Your task to perform on an android device: Add "razer blade" to the cart on bestbuy, then select checkout. Image 0: 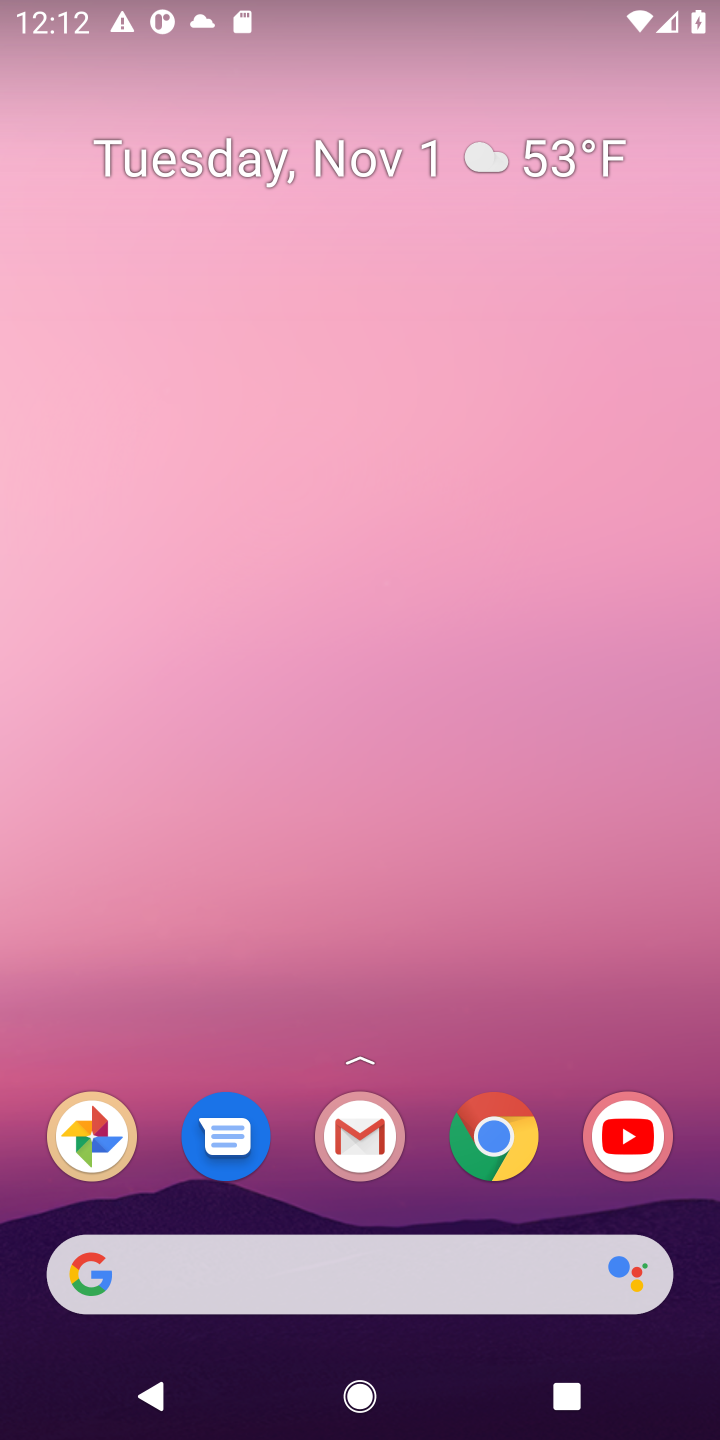
Step 0: click (146, 1272)
Your task to perform on an android device: Add "razer blade" to the cart on bestbuy, then select checkout. Image 1: 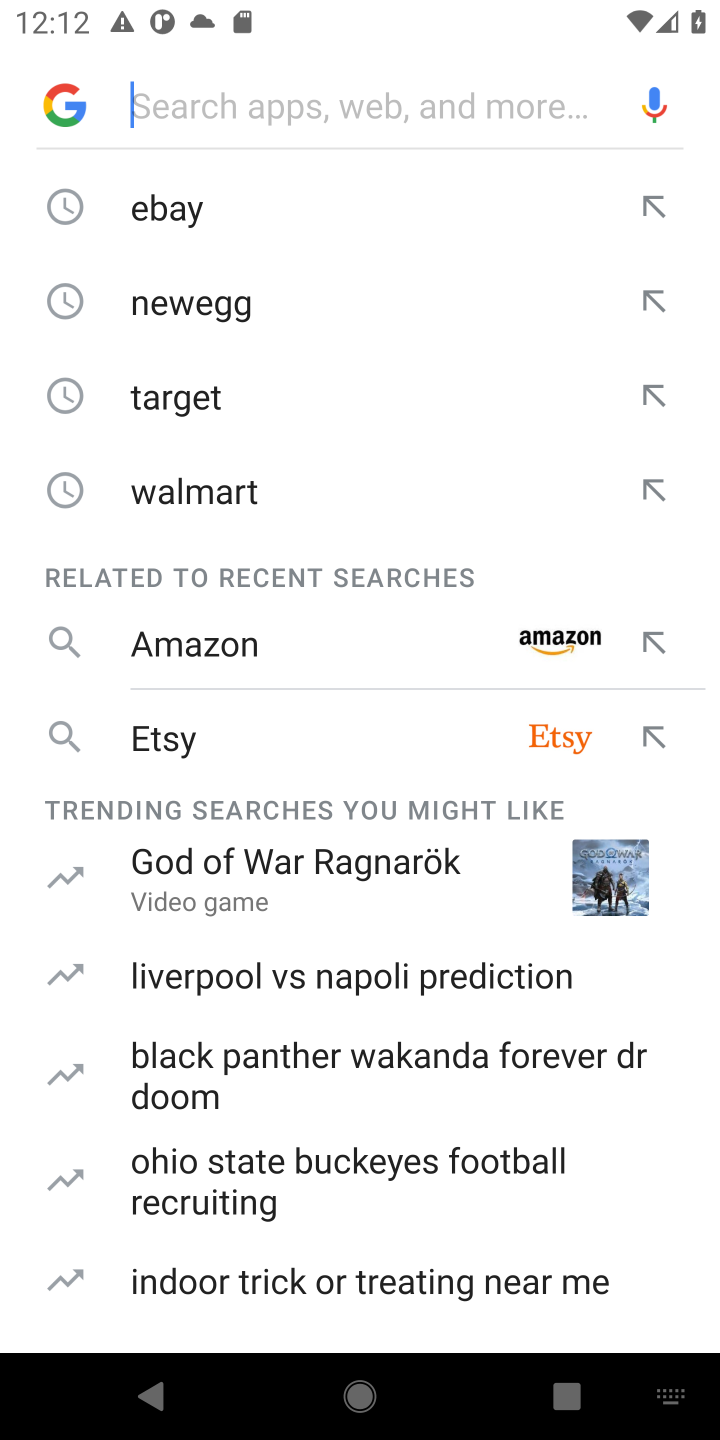
Step 1: press enter
Your task to perform on an android device: Add "razer blade" to the cart on bestbuy, then select checkout. Image 2: 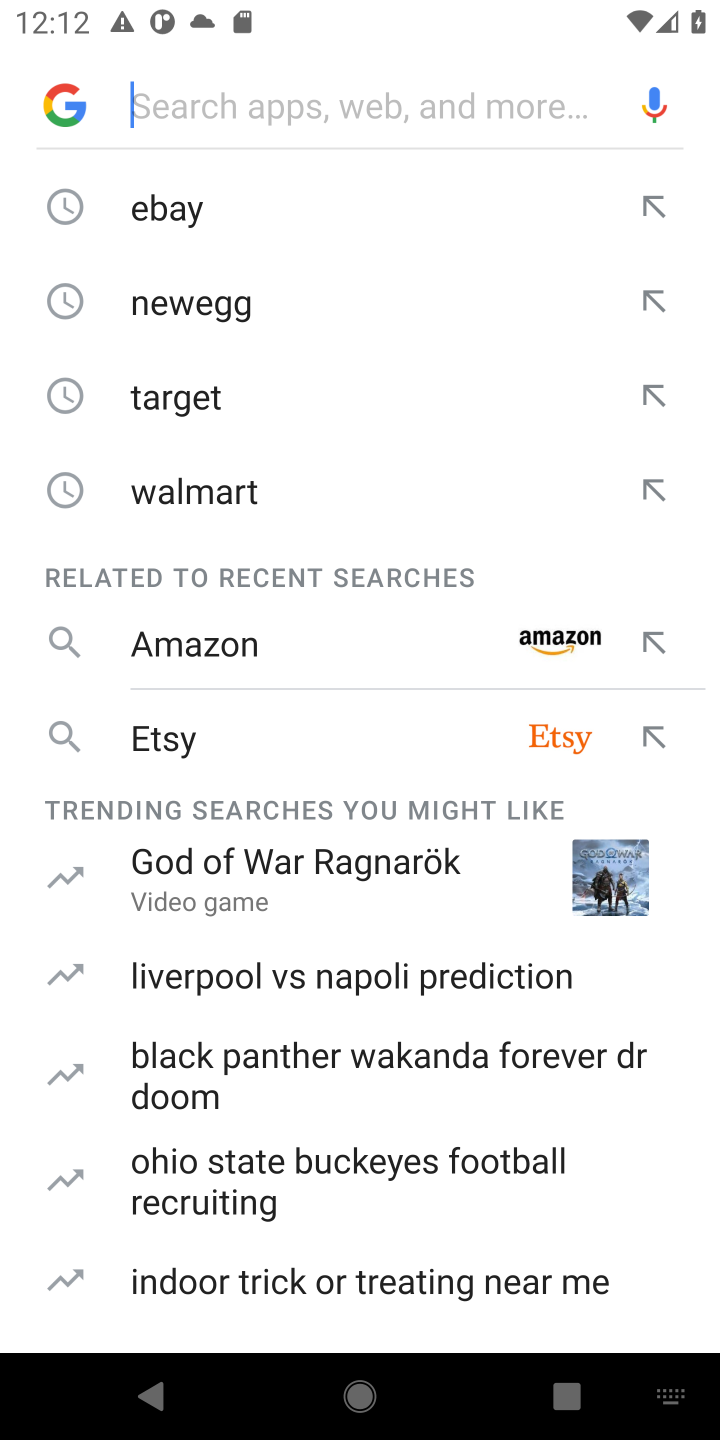
Step 2: type "bestbuy"
Your task to perform on an android device: Add "razer blade" to the cart on bestbuy, then select checkout. Image 3: 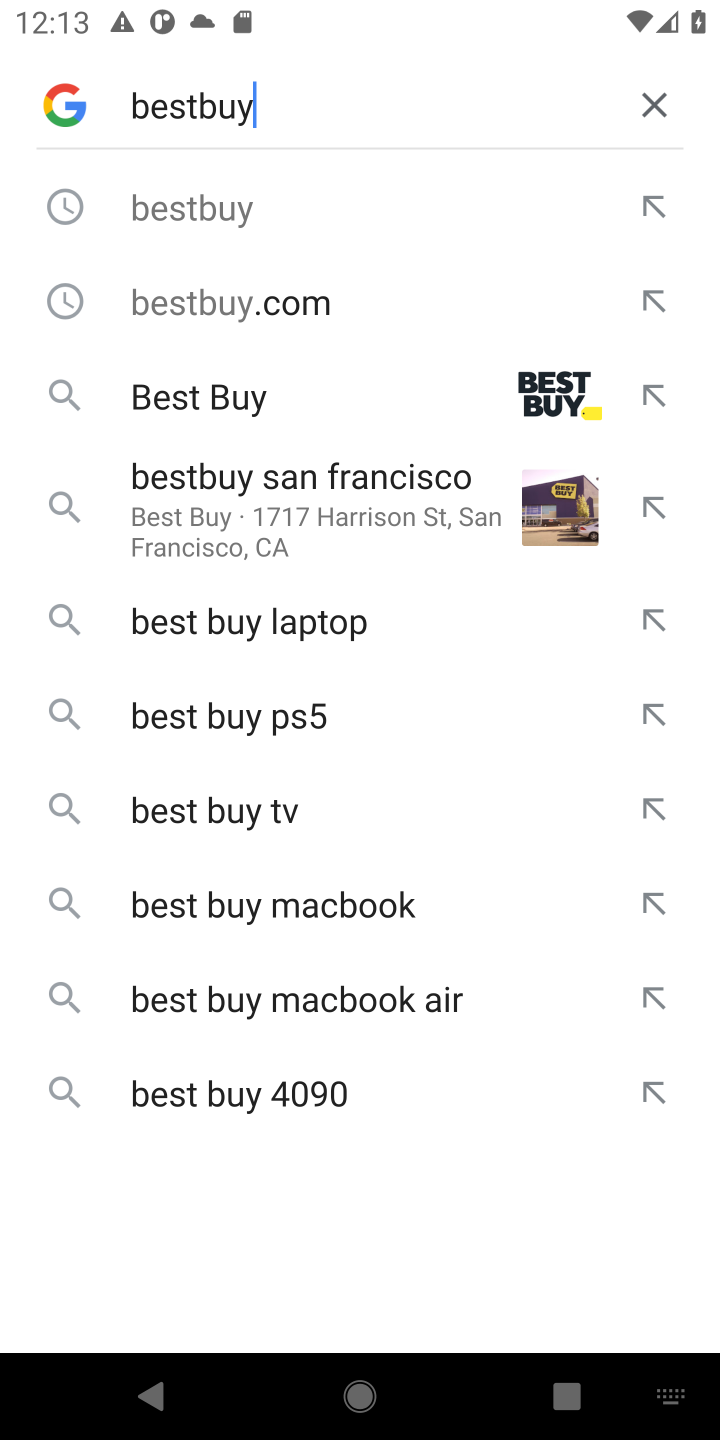
Step 3: press enter
Your task to perform on an android device: Add "razer blade" to the cart on bestbuy, then select checkout. Image 4: 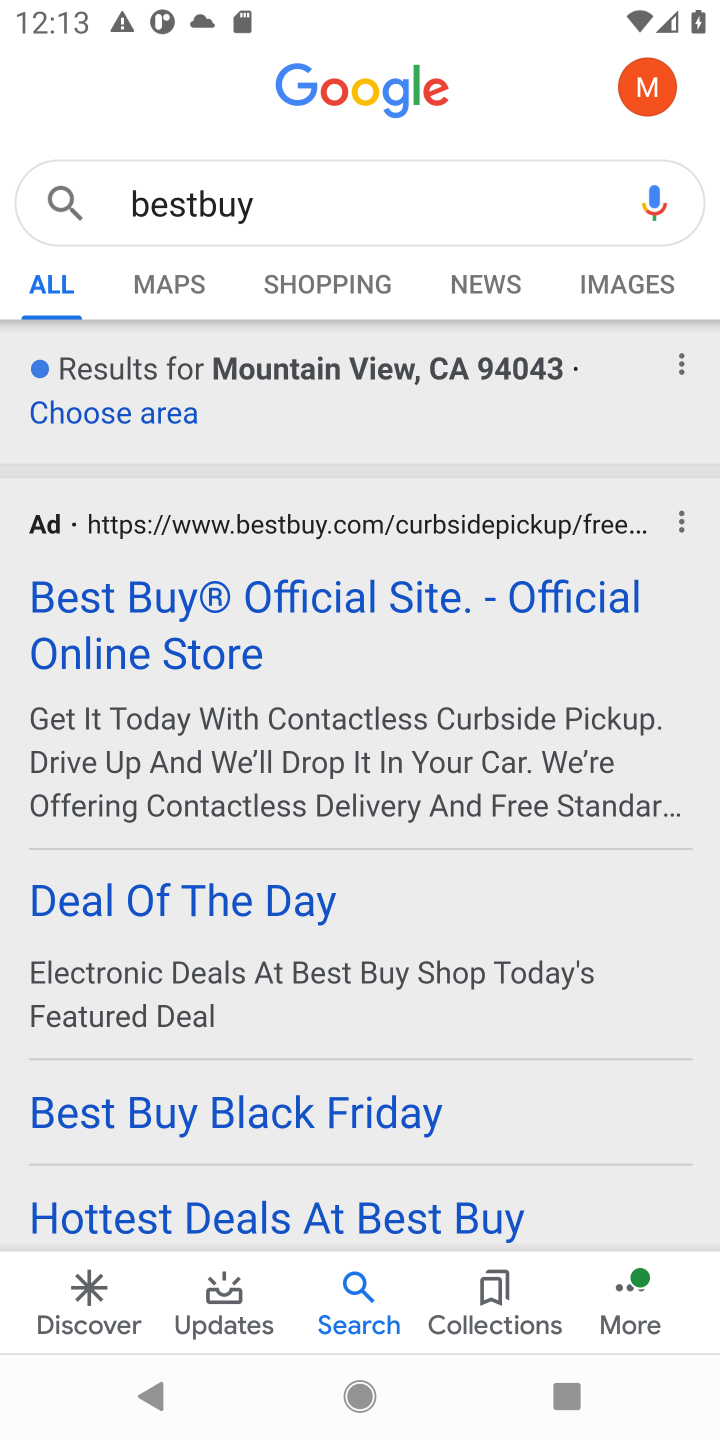
Step 4: click (203, 626)
Your task to perform on an android device: Add "razer blade" to the cart on bestbuy, then select checkout. Image 5: 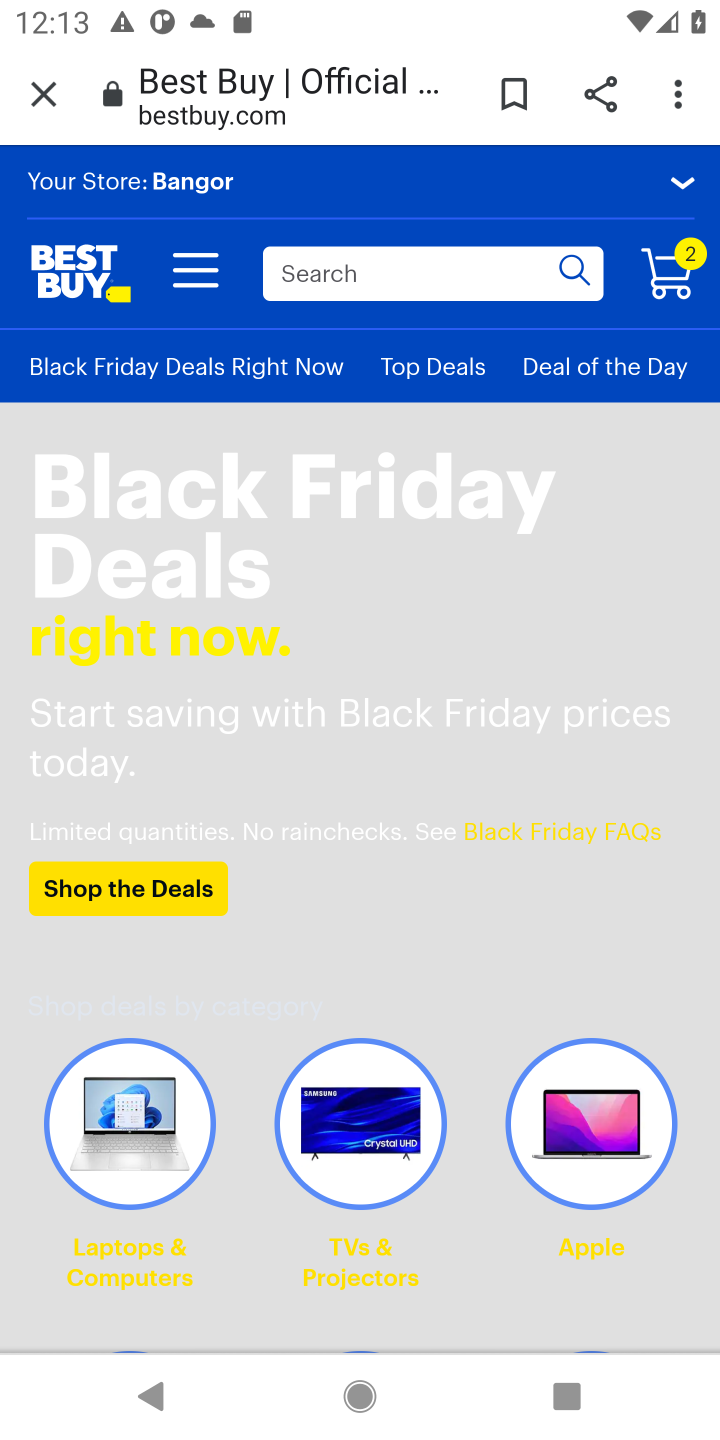
Step 5: click (315, 267)
Your task to perform on an android device: Add "razer blade" to the cart on bestbuy, then select checkout. Image 6: 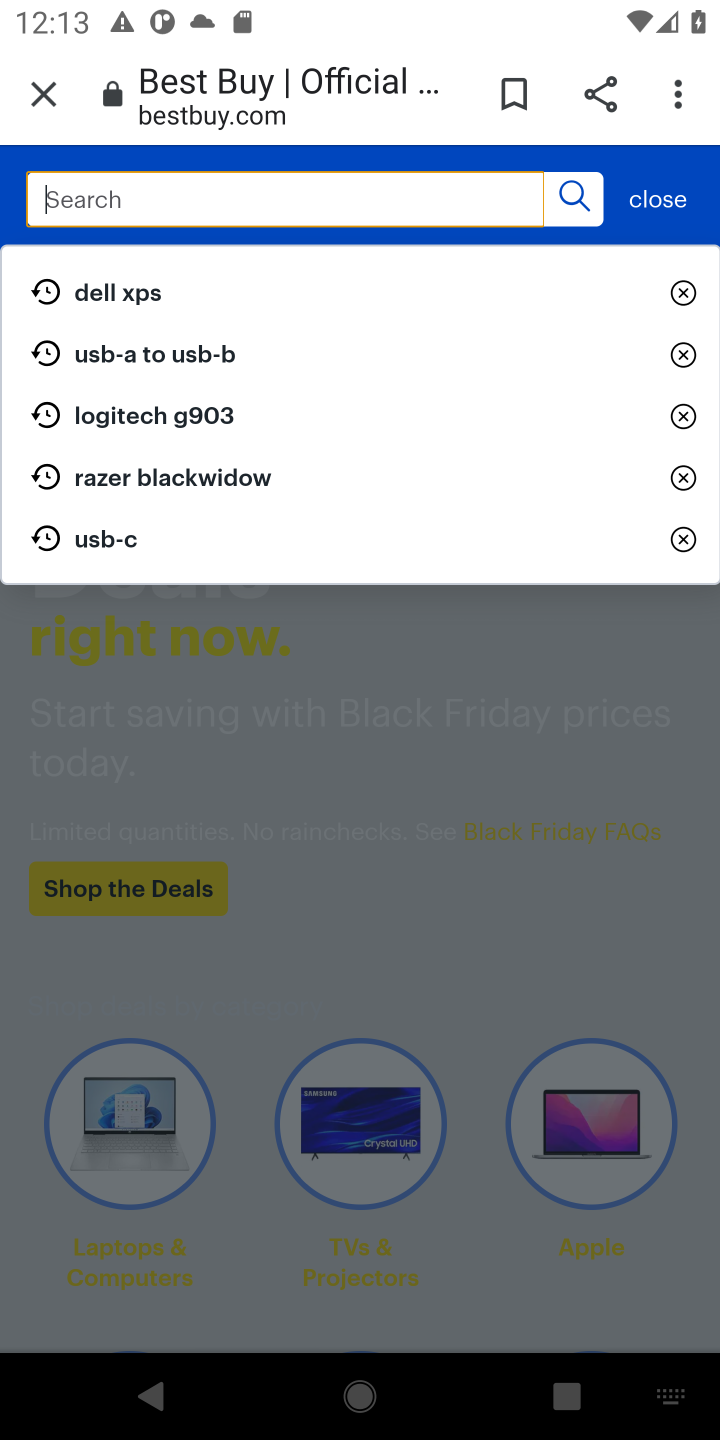
Step 6: type "razer blade"
Your task to perform on an android device: Add "razer blade" to the cart on bestbuy, then select checkout. Image 7: 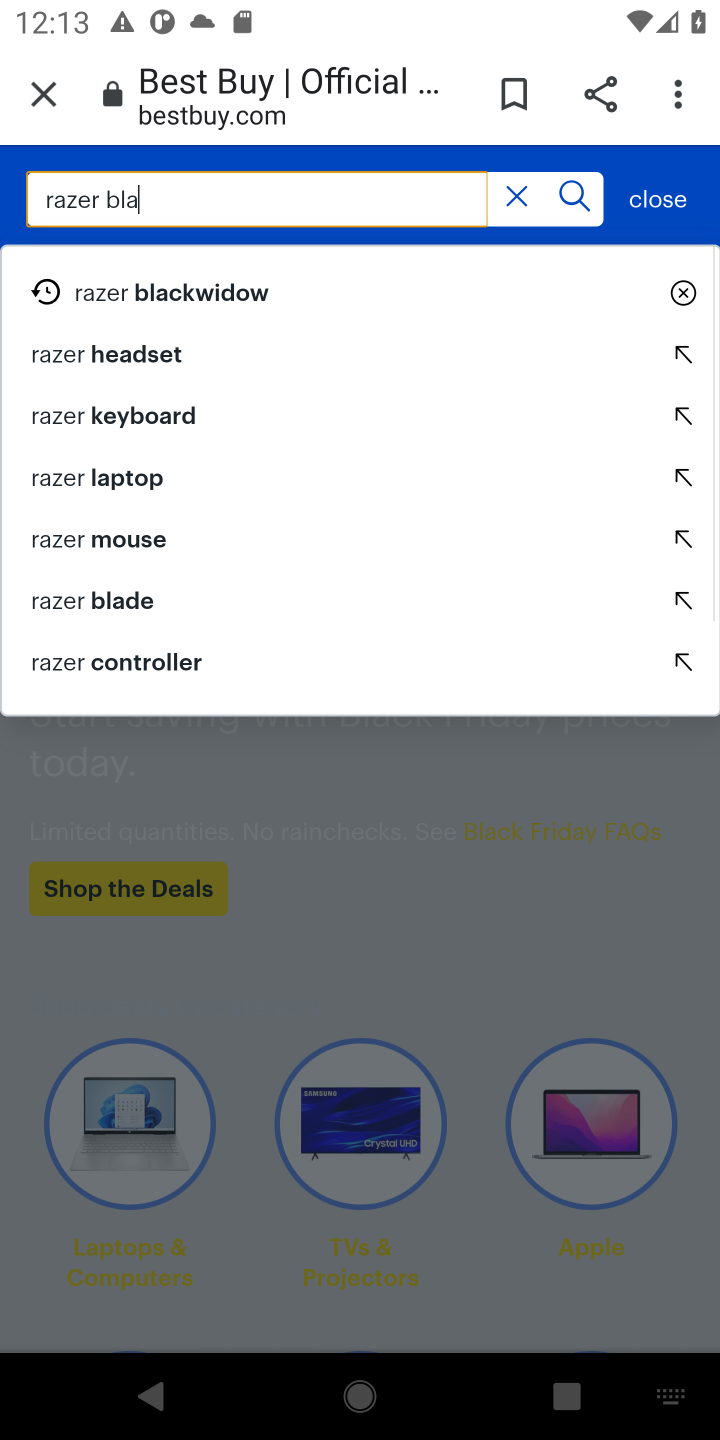
Step 7: press enter
Your task to perform on an android device: Add "razer blade" to the cart on bestbuy, then select checkout. Image 8: 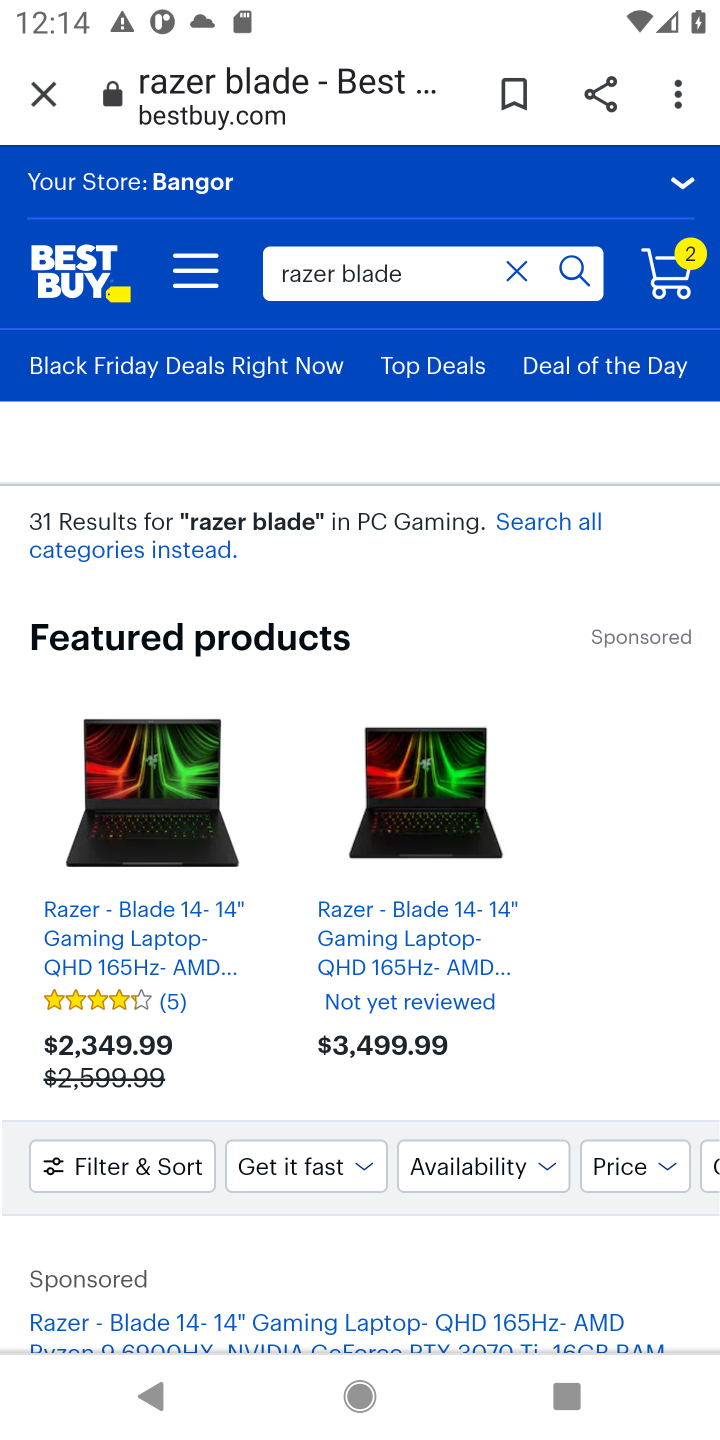
Step 8: drag from (408, 1131) to (461, 554)
Your task to perform on an android device: Add "razer blade" to the cart on bestbuy, then select checkout. Image 9: 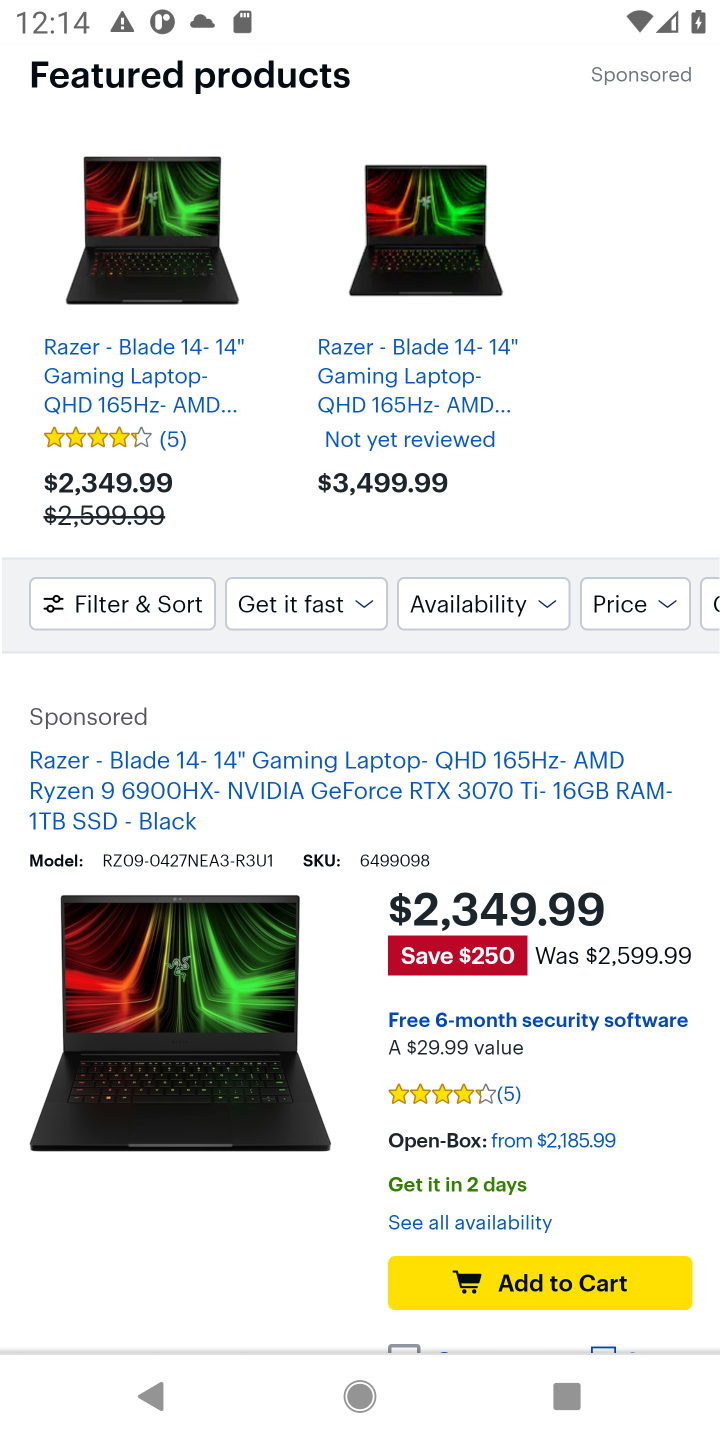
Step 9: drag from (314, 1223) to (349, 574)
Your task to perform on an android device: Add "razer blade" to the cart on bestbuy, then select checkout. Image 10: 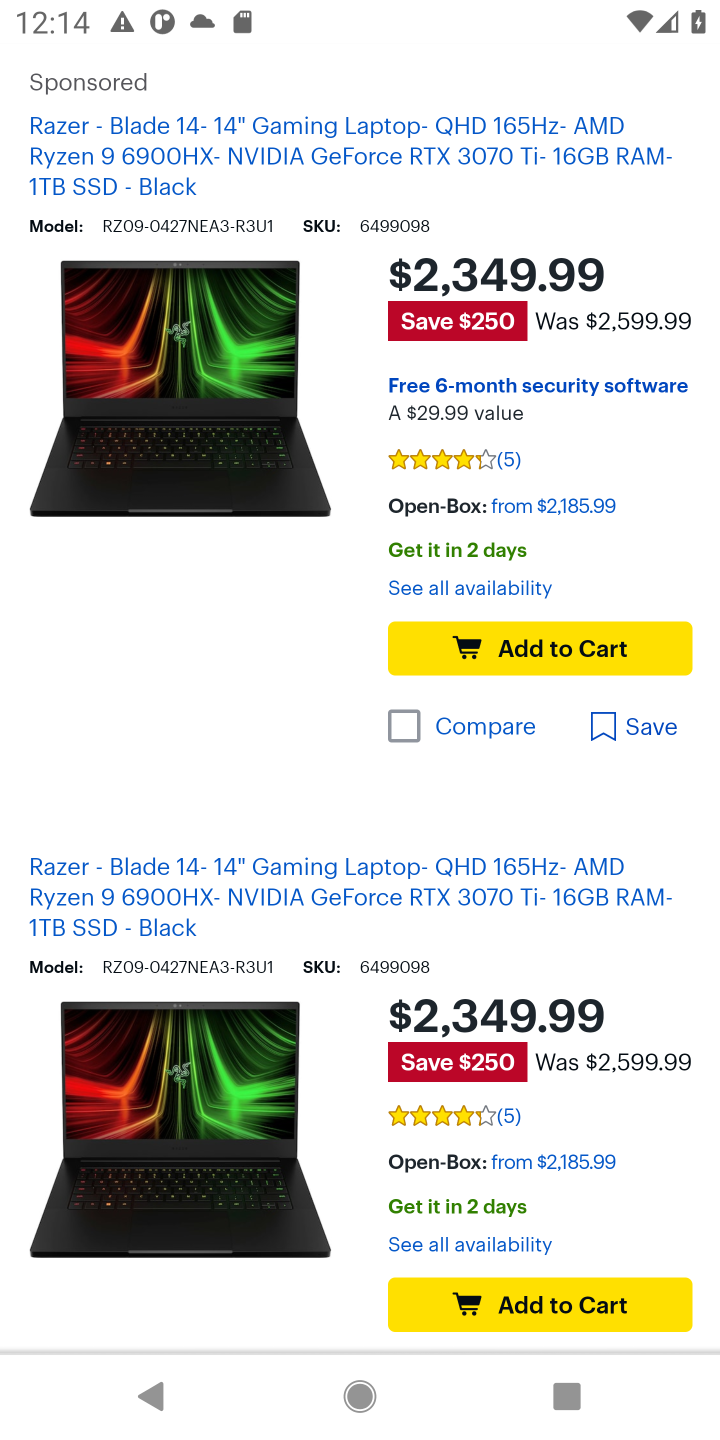
Step 10: click (535, 642)
Your task to perform on an android device: Add "razer blade" to the cart on bestbuy, then select checkout. Image 11: 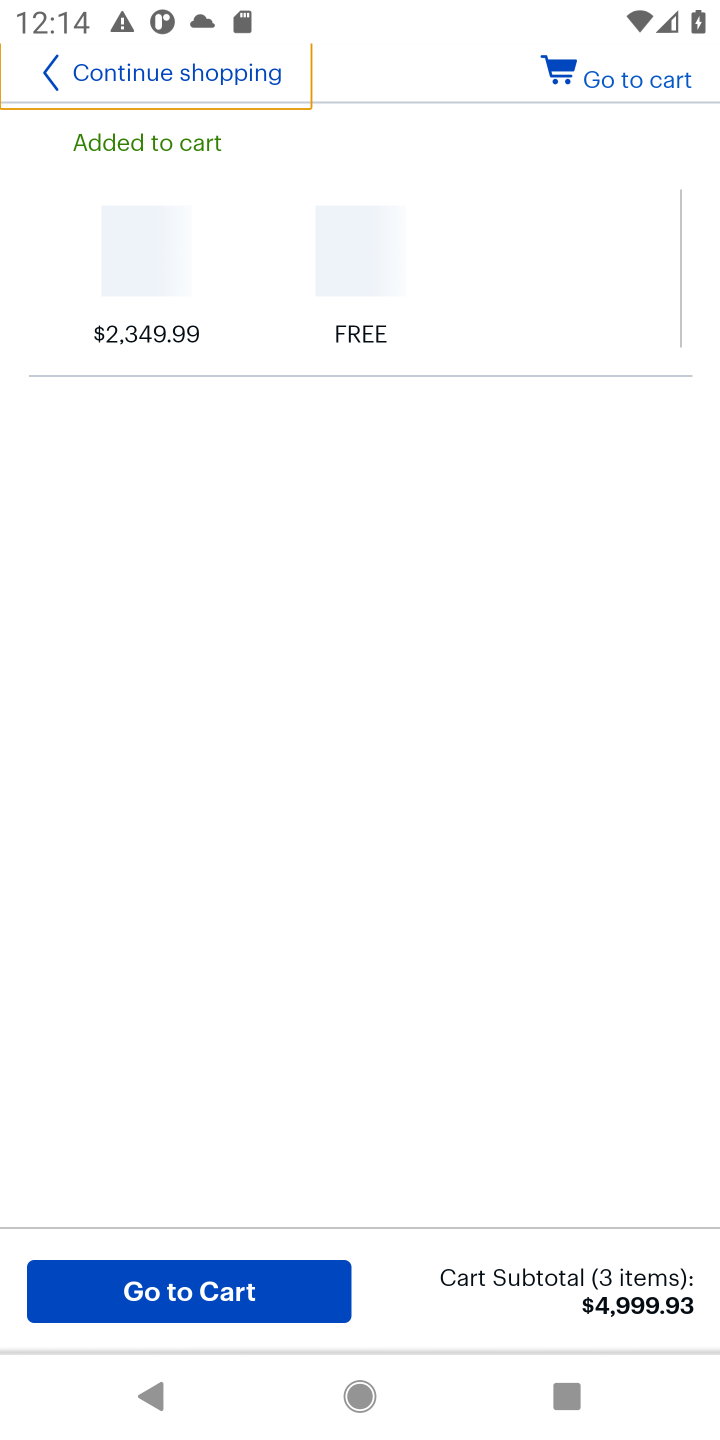
Step 11: click (173, 1284)
Your task to perform on an android device: Add "razer blade" to the cart on bestbuy, then select checkout. Image 12: 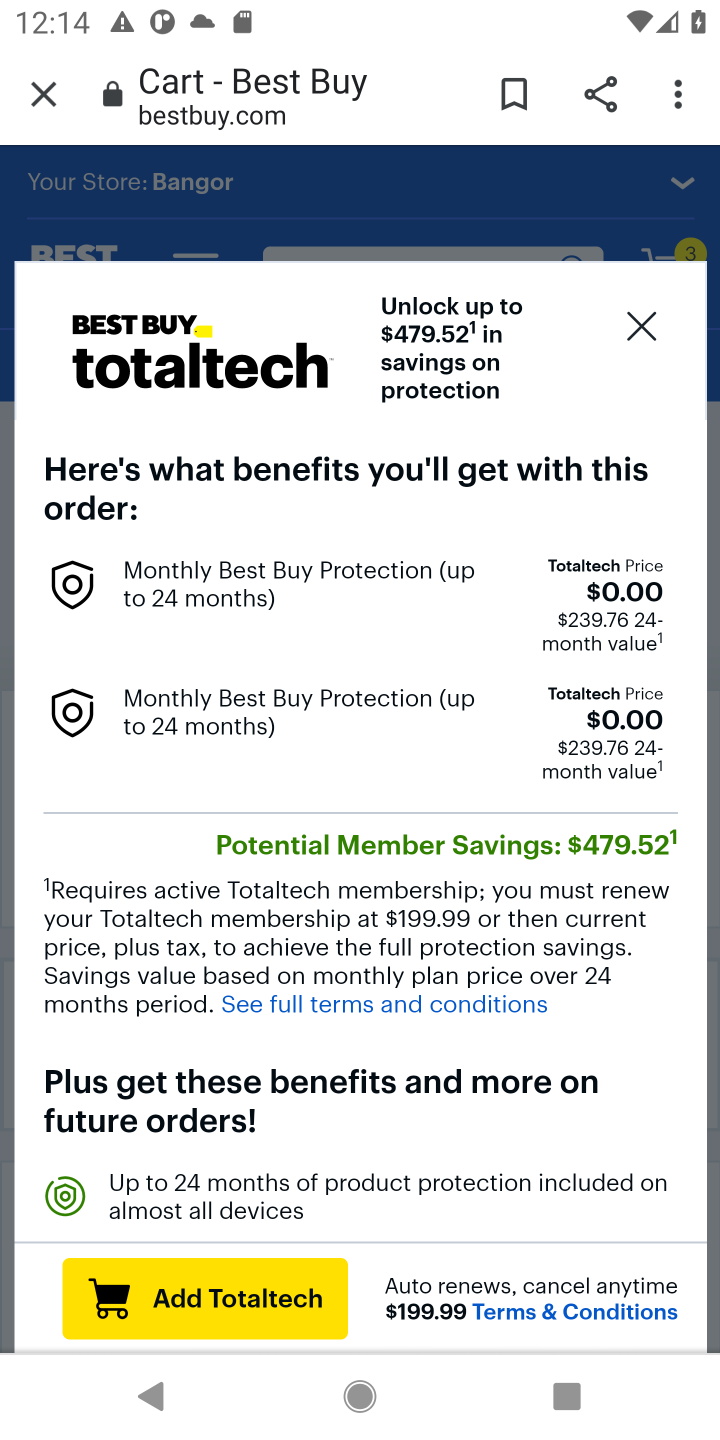
Step 12: click (649, 323)
Your task to perform on an android device: Add "razer blade" to the cart on bestbuy, then select checkout. Image 13: 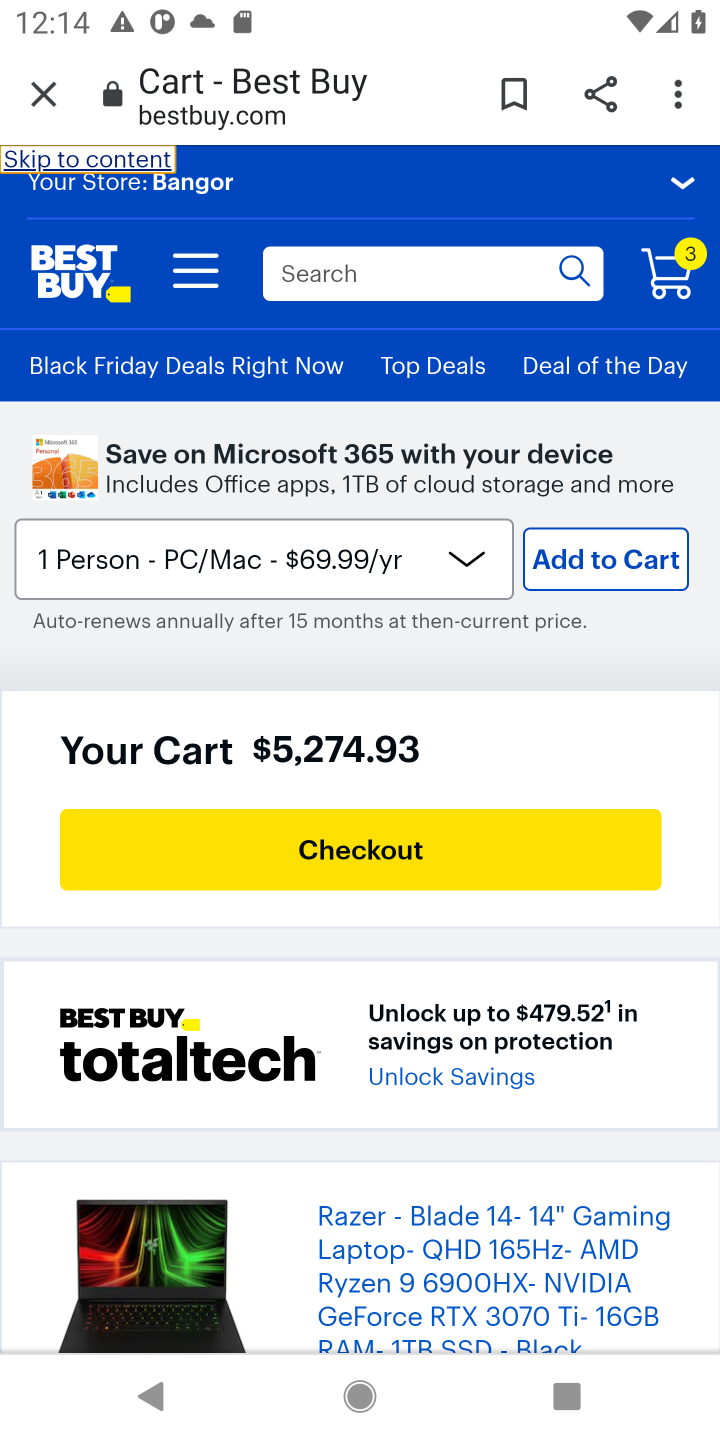
Step 13: click (357, 844)
Your task to perform on an android device: Add "razer blade" to the cart on bestbuy, then select checkout. Image 14: 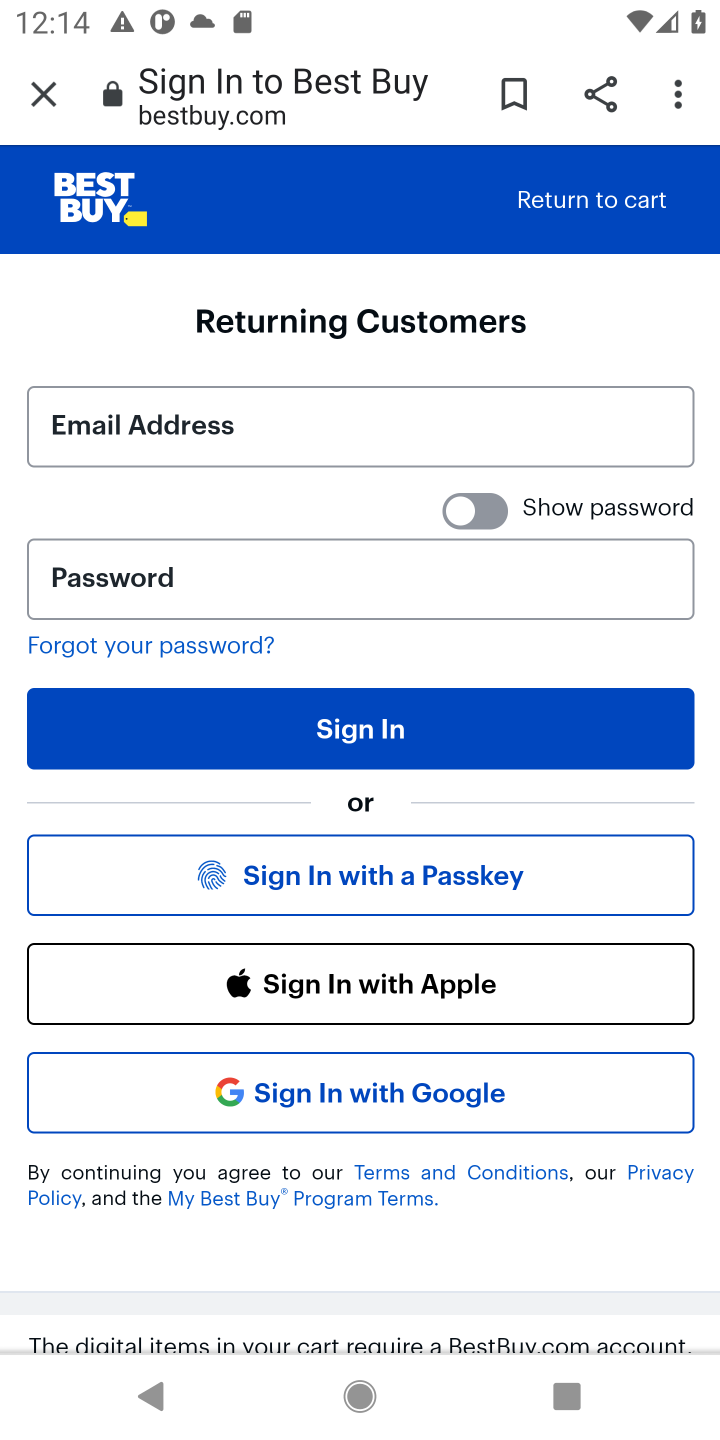
Step 14: task complete